Your task to perform on an android device: Check the weather Image 0: 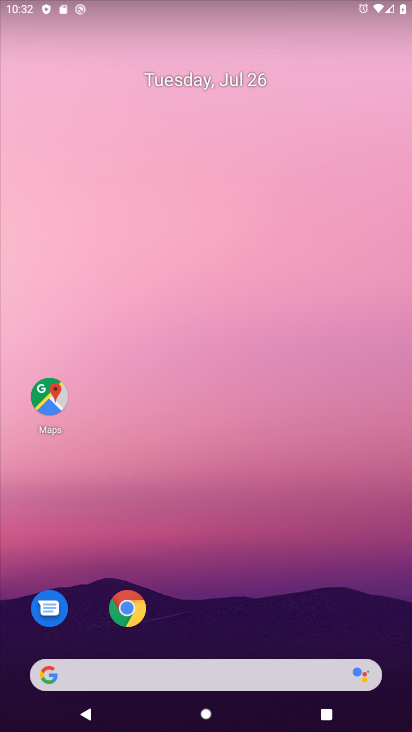
Step 0: drag from (239, 722) to (249, 247)
Your task to perform on an android device: Check the weather Image 1: 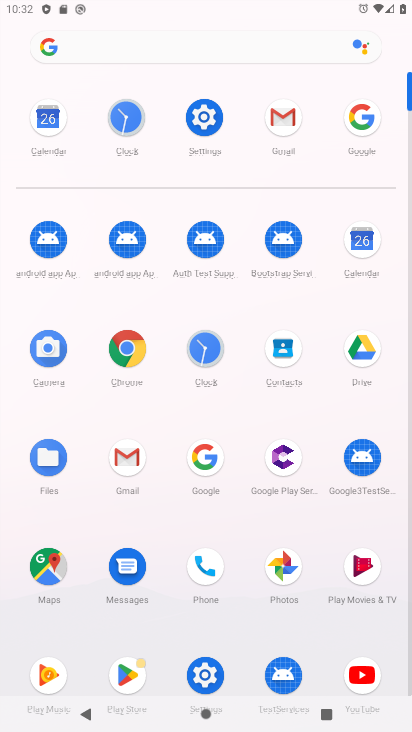
Step 1: click (207, 464)
Your task to perform on an android device: Check the weather Image 2: 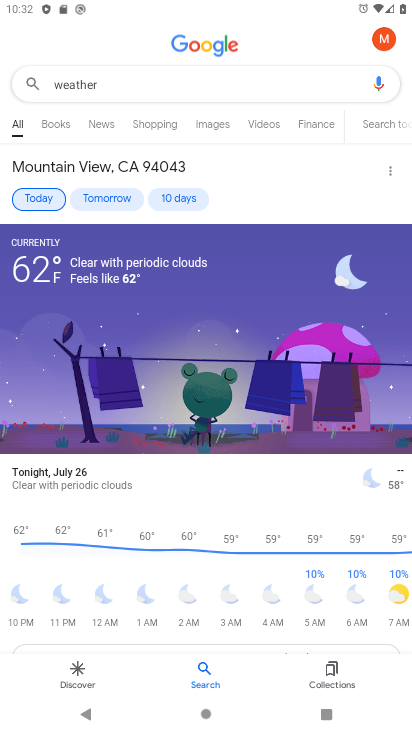
Step 2: task complete